Your task to perform on an android device: Open the phone app and click the voicemail tab. Image 0: 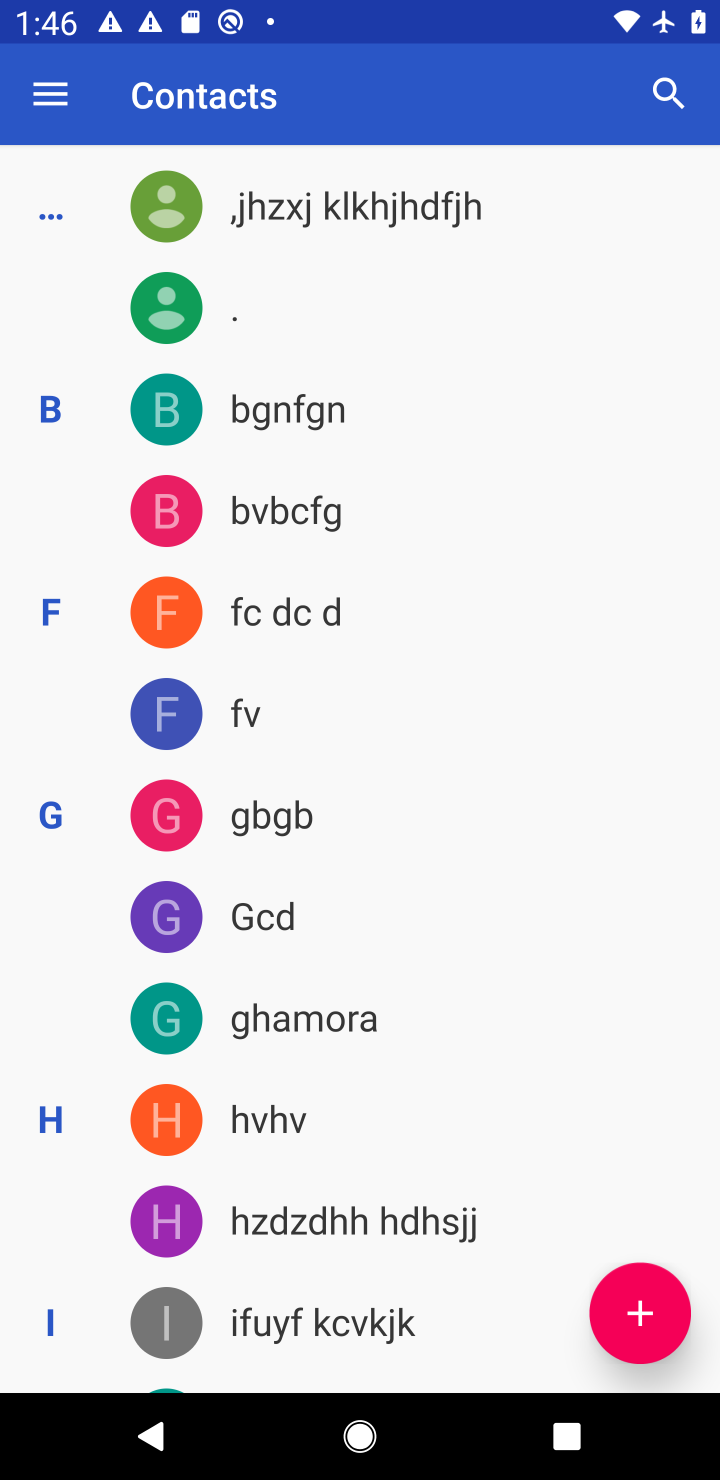
Step 0: press home button
Your task to perform on an android device: Open the phone app and click the voicemail tab. Image 1: 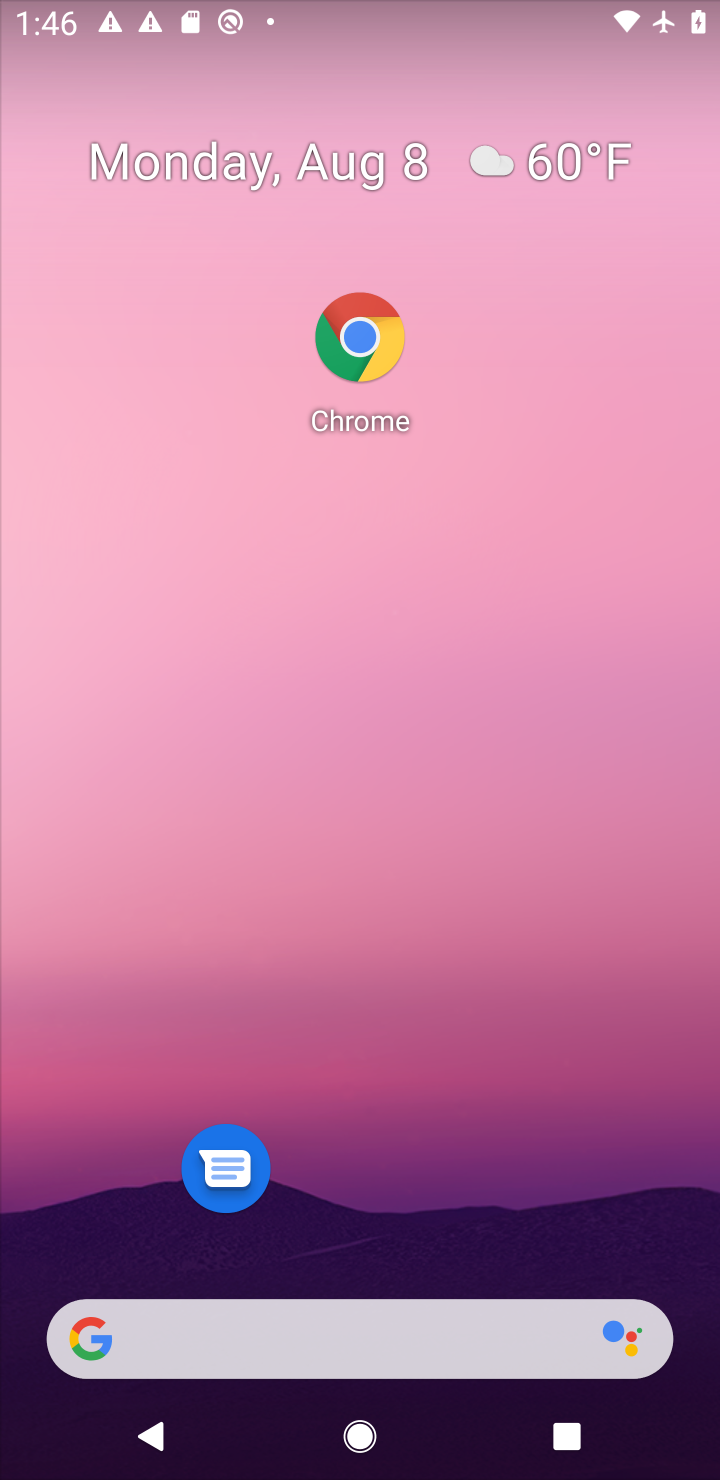
Step 1: drag from (481, 1257) to (309, 65)
Your task to perform on an android device: Open the phone app and click the voicemail tab. Image 2: 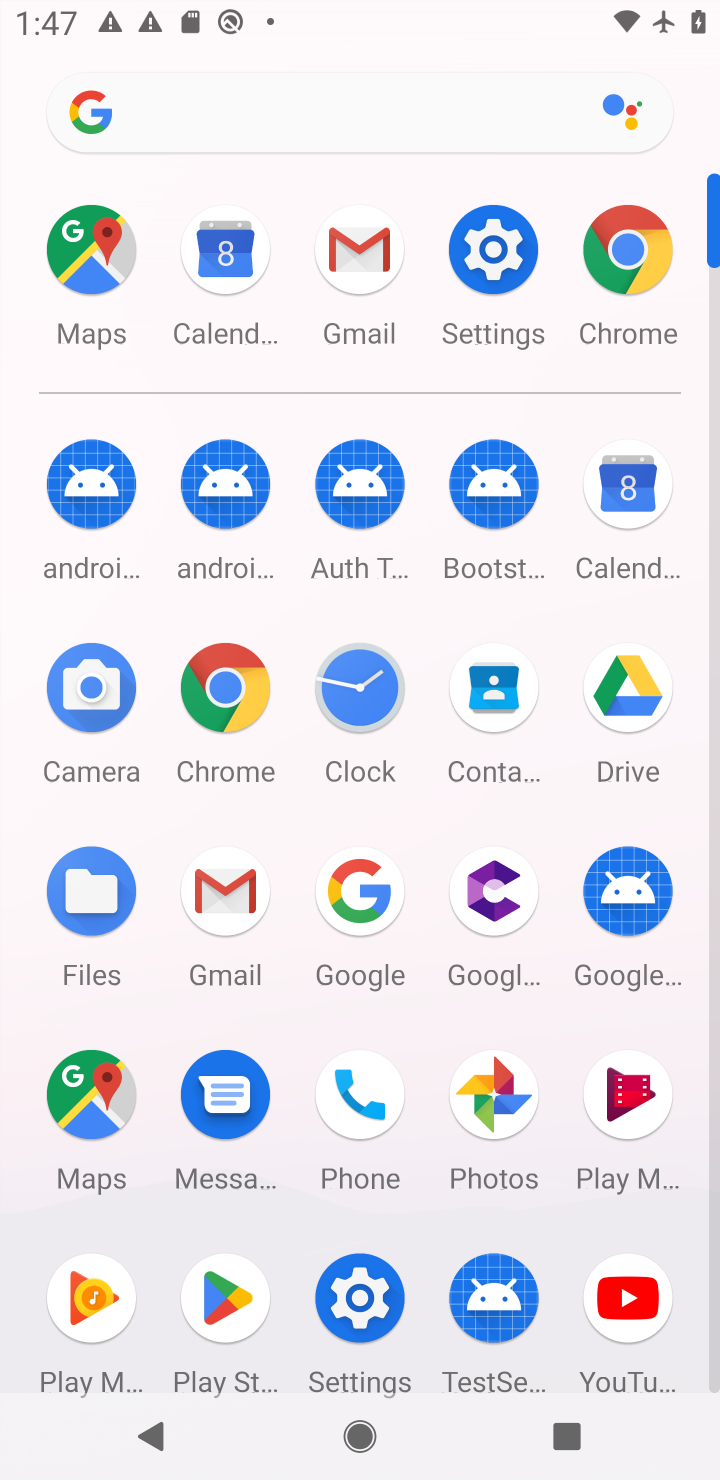
Step 2: click (387, 1170)
Your task to perform on an android device: Open the phone app and click the voicemail tab. Image 3: 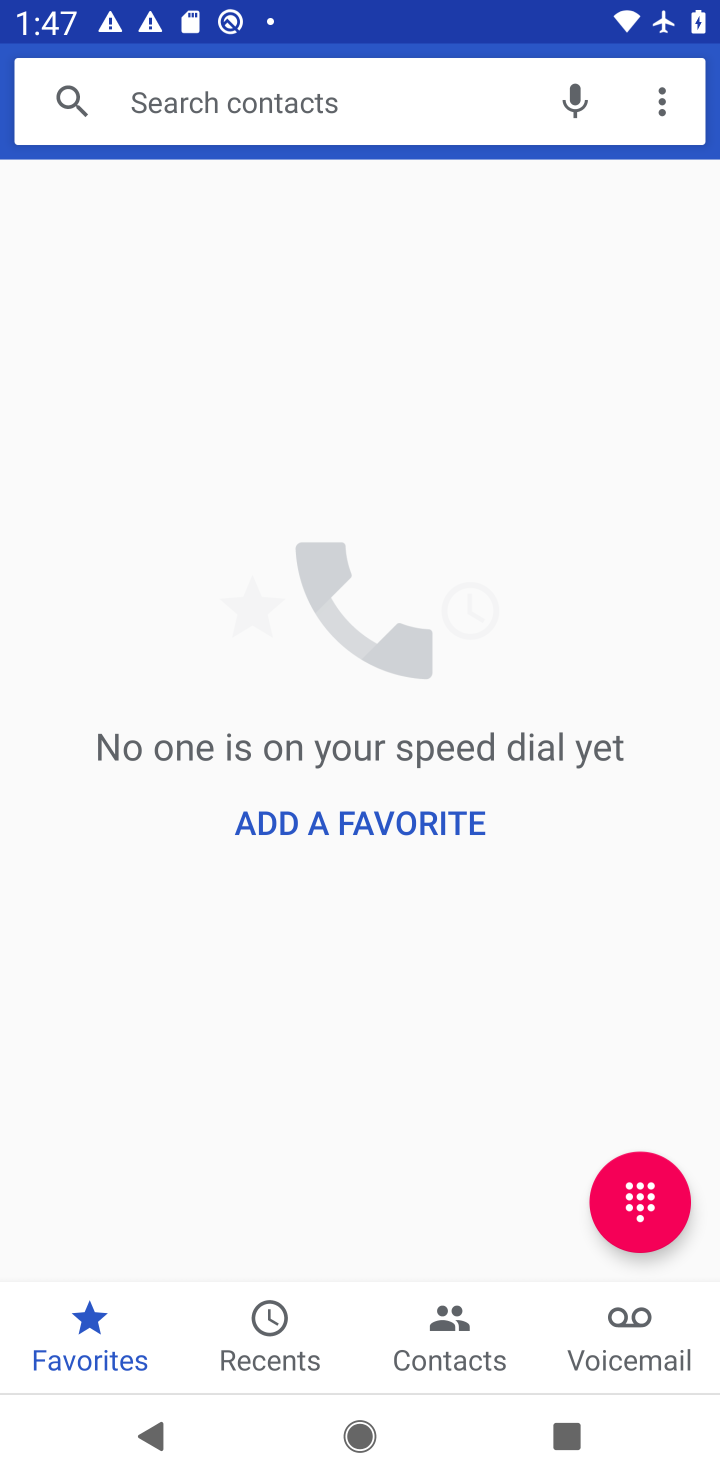
Step 3: click (637, 1322)
Your task to perform on an android device: Open the phone app and click the voicemail tab. Image 4: 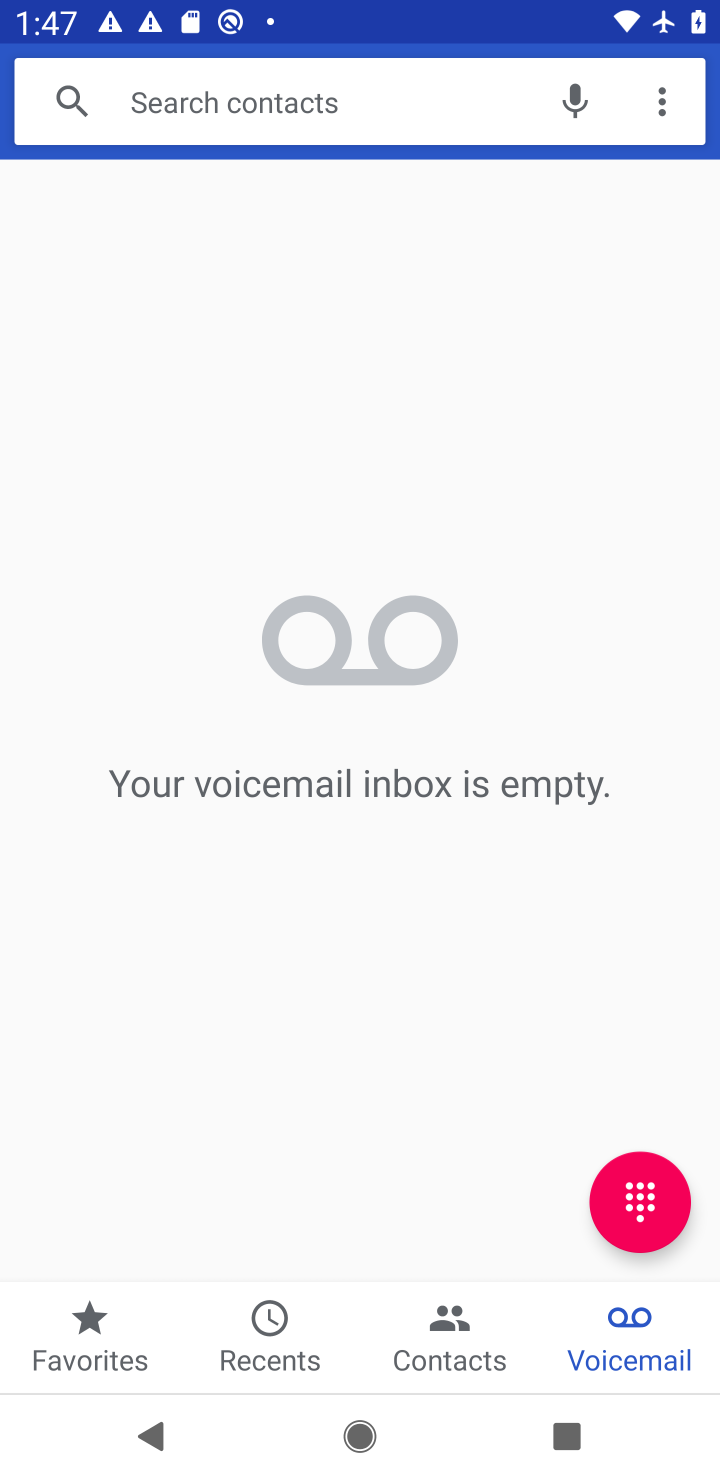
Step 4: task complete